Your task to perform on an android device: see sites visited before in the chrome app Image 0: 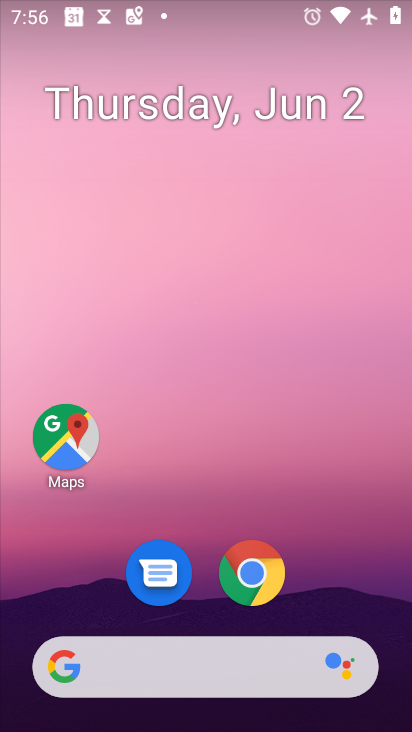
Step 0: press home button
Your task to perform on an android device: see sites visited before in the chrome app Image 1: 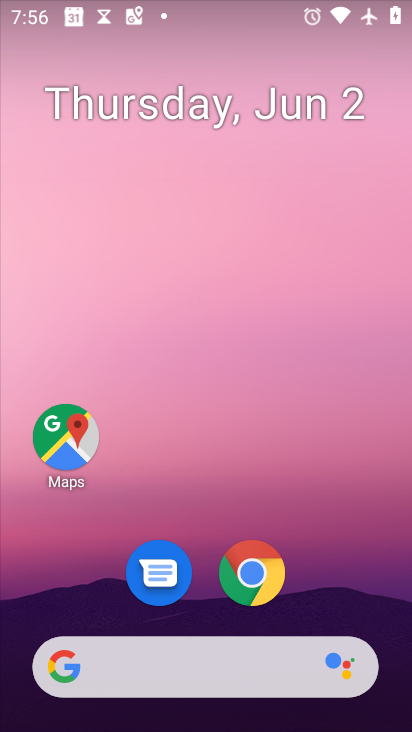
Step 1: click (256, 574)
Your task to perform on an android device: see sites visited before in the chrome app Image 2: 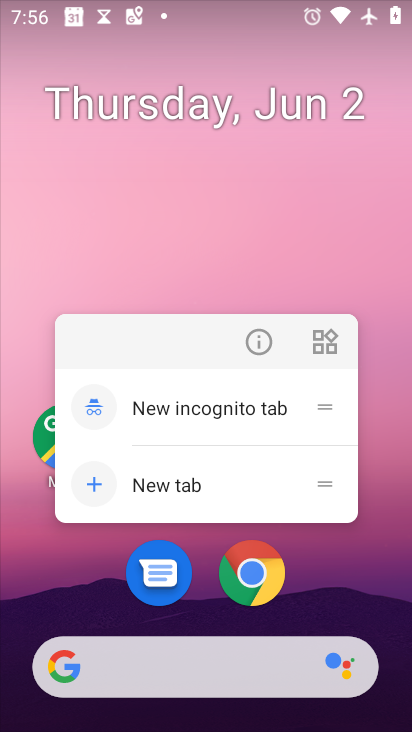
Step 2: click (239, 600)
Your task to perform on an android device: see sites visited before in the chrome app Image 3: 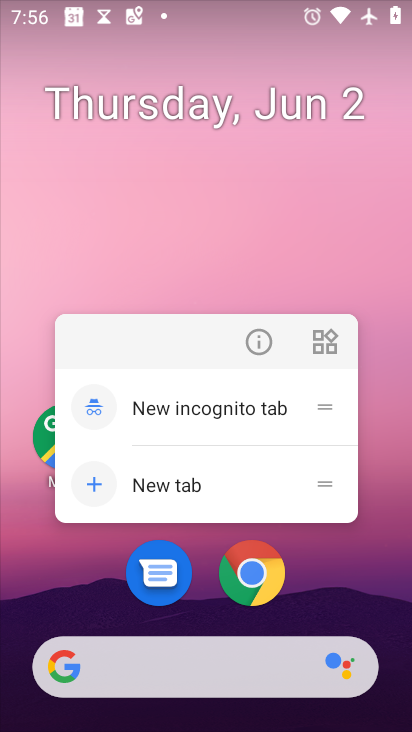
Step 3: click (253, 584)
Your task to perform on an android device: see sites visited before in the chrome app Image 4: 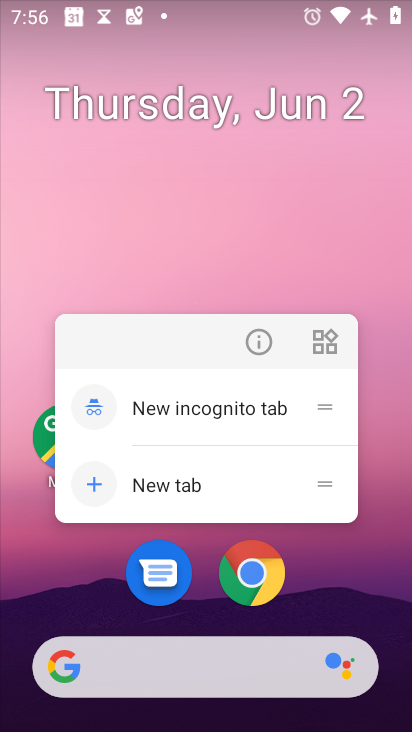
Step 4: click (253, 584)
Your task to perform on an android device: see sites visited before in the chrome app Image 5: 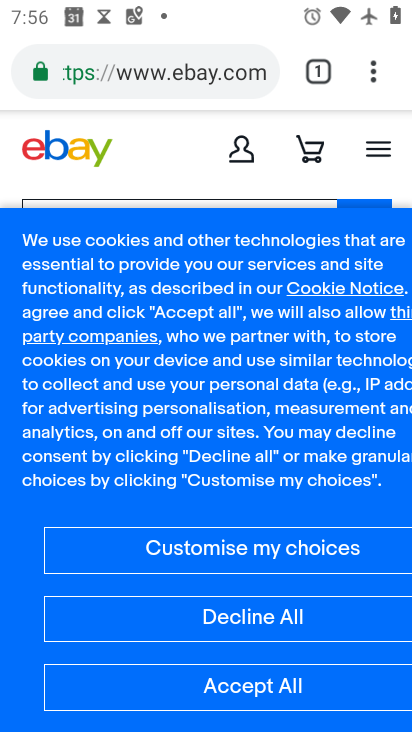
Step 5: task complete